Your task to perform on an android device: snooze an email in the gmail app Image 0: 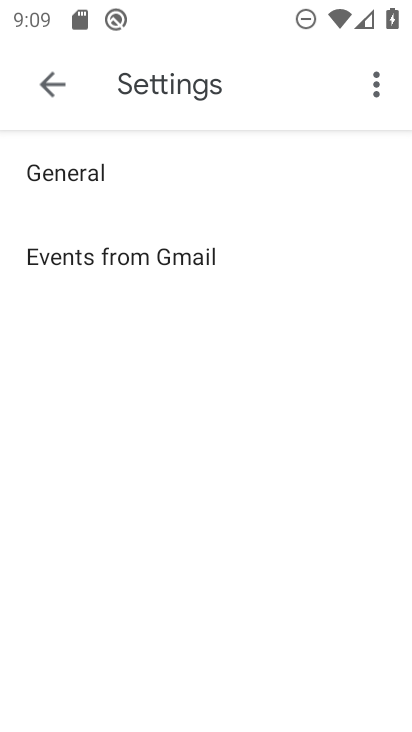
Step 0: press home button
Your task to perform on an android device: snooze an email in the gmail app Image 1: 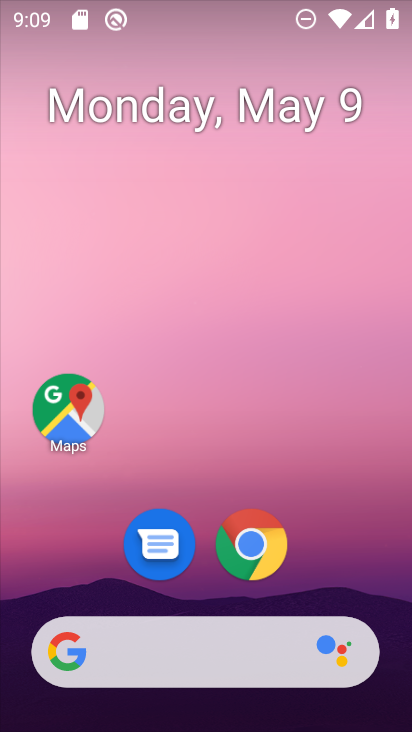
Step 1: drag from (345, 552) to (281, 105)
Your task to perform on an android device: snooze an email in the gmail app Image 2: 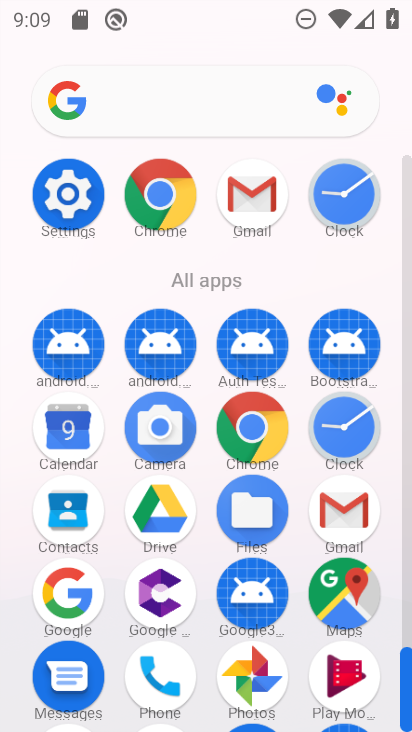
Step 2: click (342, 513)
Your task to perform on an android device: snooze an email in the gmail app Image 3: 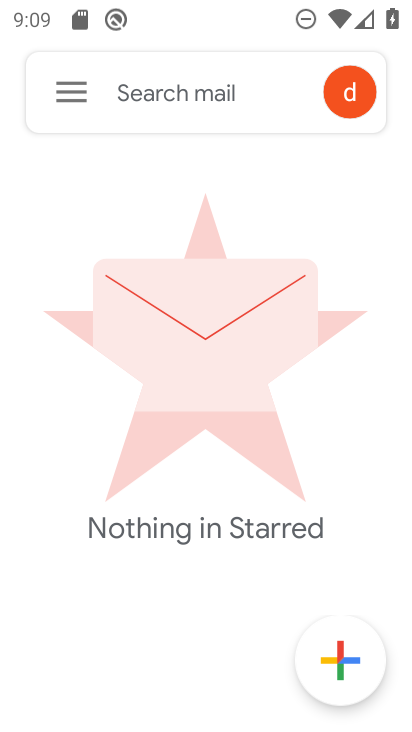
Step 3: click (66, 90)
Your task to perform on an android device: snooze an email in the gmail app Image 4: 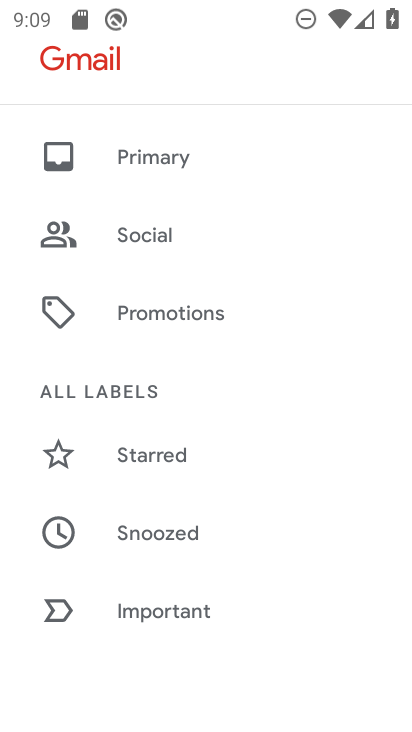
Step 4: drag from (220, 547) to (202, 300)
Your task to perform on an android device: snooze an email in the gmail app Image 5: 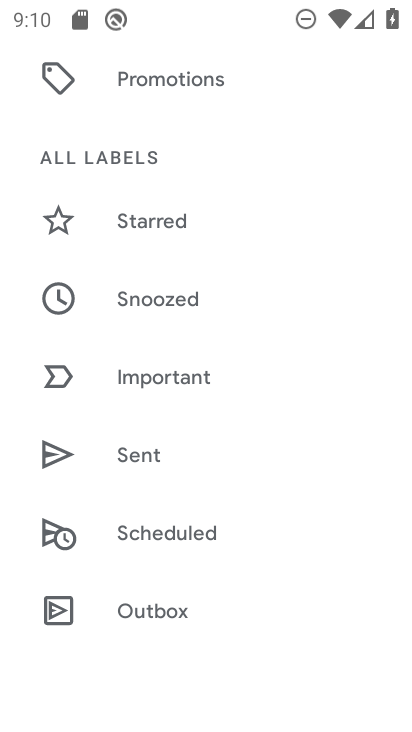
Step 5: drag from (163, 556) to (131, 265)
Your task to perform on an android device: snooze an email in the gmail app Image 6: 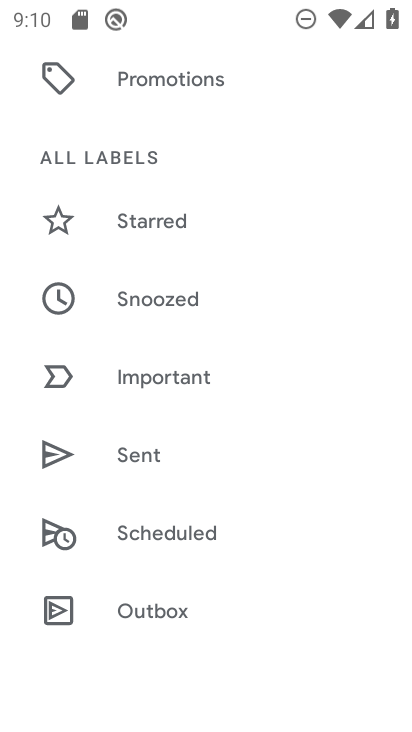
Step 6: drag from (183, 567) to (130, 280)
Your task to perform on an android device: snooze an email in the gmail app Image 7: 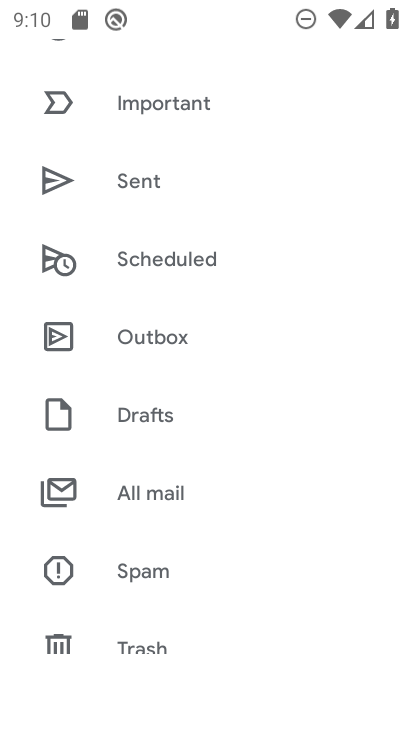
Step 7: click (159, 485)
Your task to perform on an android device: snooze an email in the gmail app Image 8: 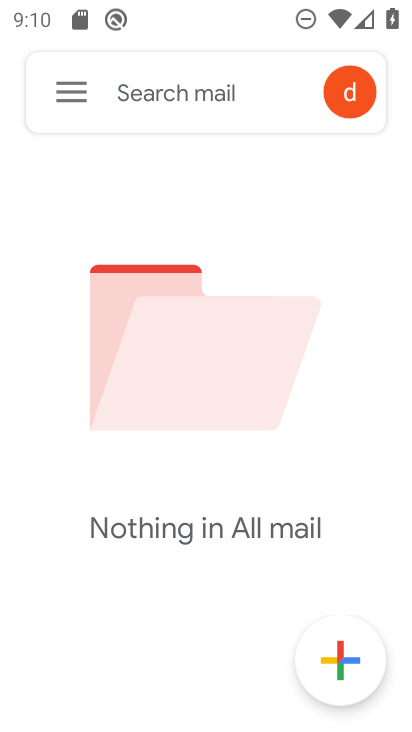
Step 8: task complete